Your task to perform on an android device: turn on bluetooth scan Image 0: 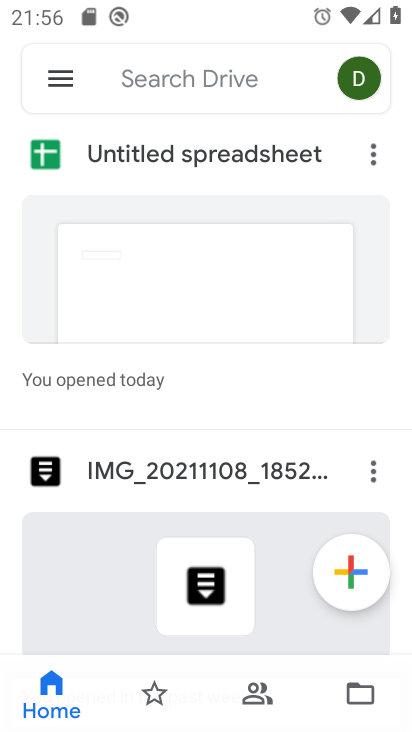
Step 0: press home button
Your task to perform on an android device: turn on bluetooth scan Image 1: 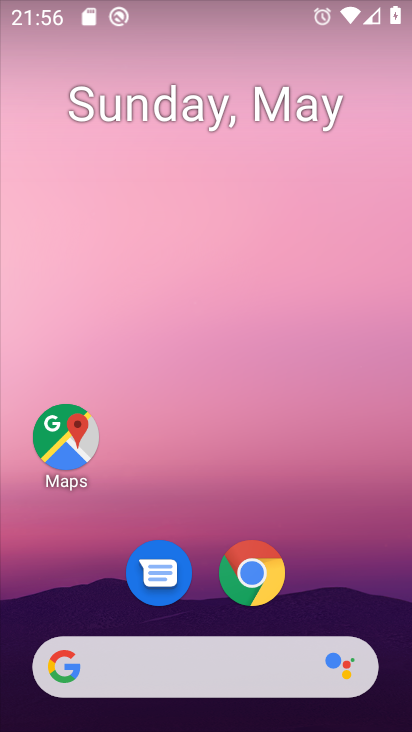
Step 1: drag from (218, 478) to (263, 0)
Your task to perform on an android device: turn on bluetooth scan Image 2: 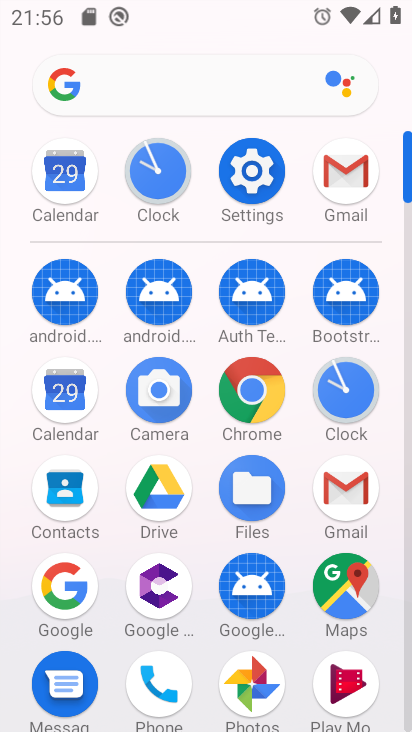
Step 2: click (260, 171)
Your task to perform on an android device: turn on bluetooth scan Image 3: 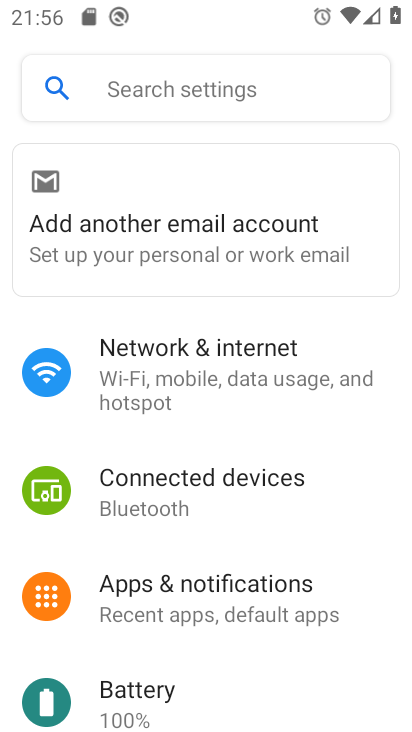
Step 3: drag from (232, 535) to (258, 151)
Your task to perform on an android device: turn on bluetooth scan Image 4: 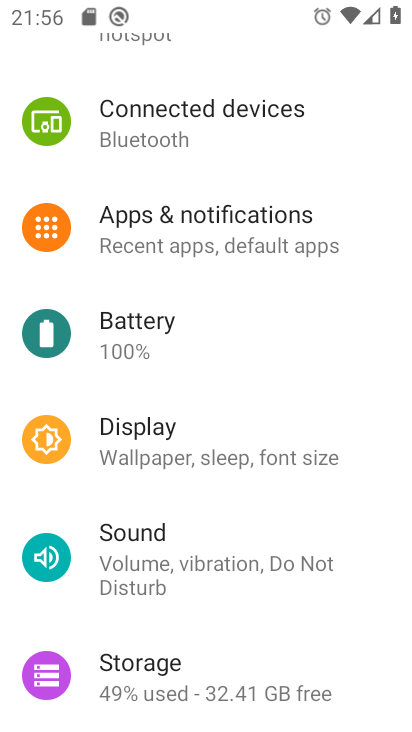
Step 4: drag from (230, 522) to (252, 149)
Your task to perform on an android device: turn on bluetooth scan Image 5: 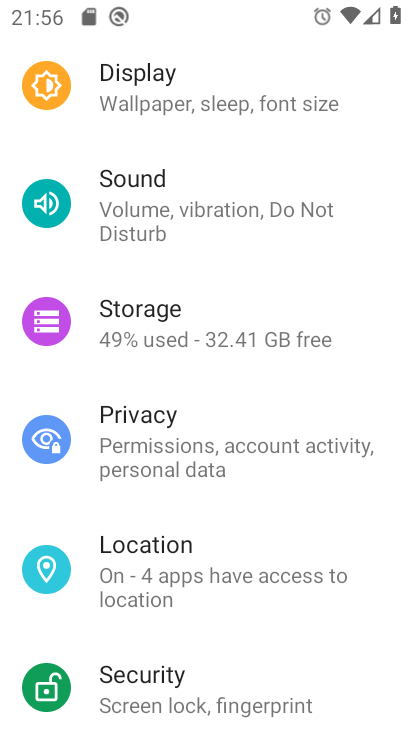
Step 5: click (204, 558)
Your task to perform on an android device: turn on bluetooth scan Image 6: 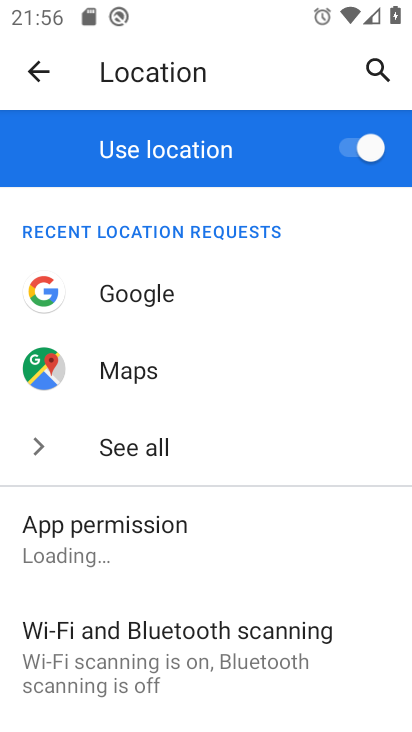
Step 6: drag from (232, 540) to (238, 207)
Your task to perform on an android device: turn on bluetooth scan Image 7: 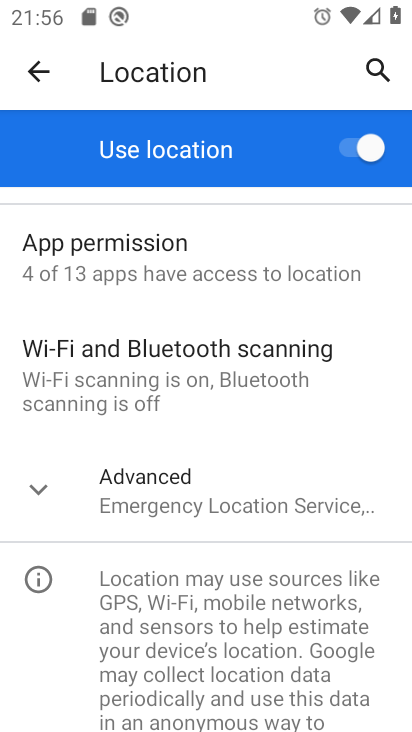
Step 7: click (316, 367)
Your task to perform on an android device: turn on bluetooth scan Image 8: 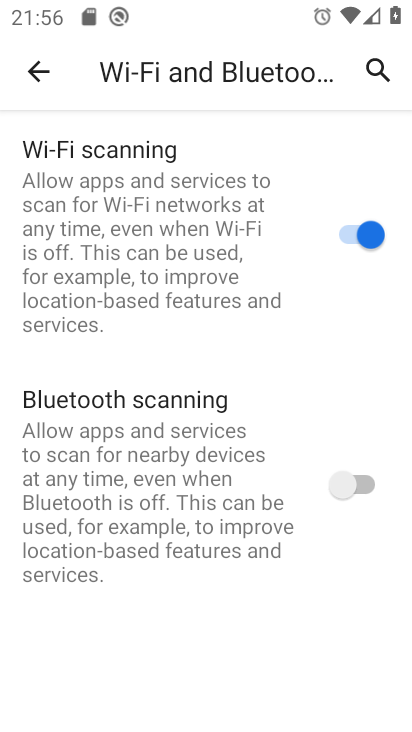
Step 8: click (367, 482)
Your task to perform on an android device: turn on bluetooth scan Image 9: 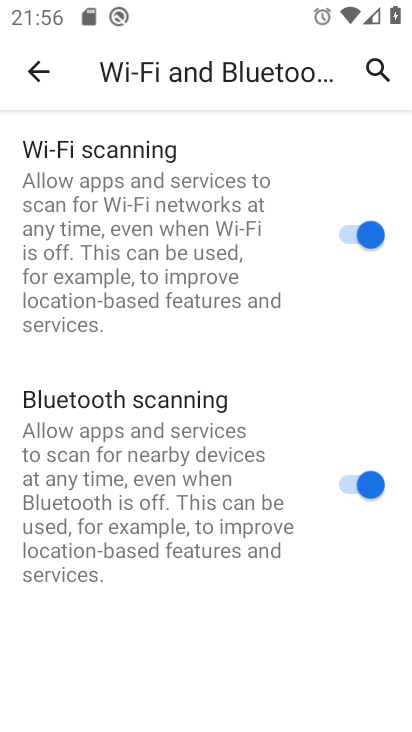
Step 9: task complete